Your task to perform on an android device: open a bookmark in the chrome app Image 0: 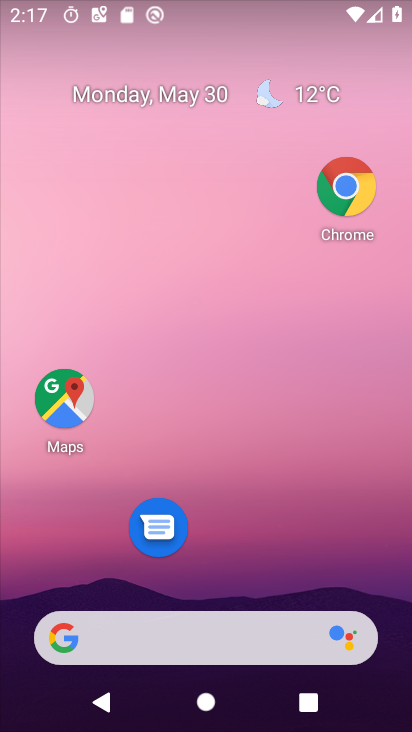
Step 0: drag from (184, 577) to (211, 103)
Your task to perform on an android device: open a bookmark in the chrome app Image 1: 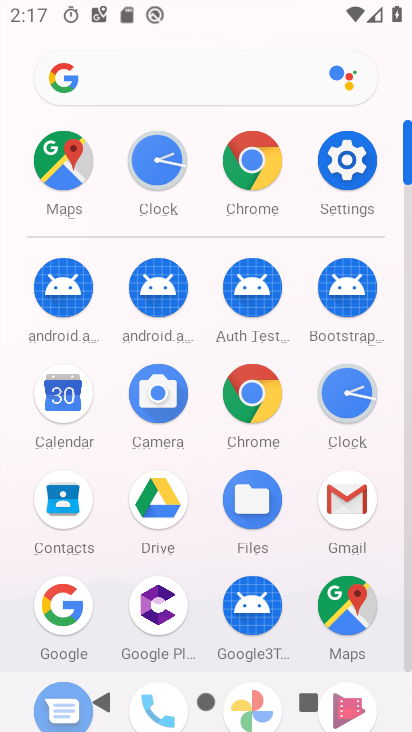
Step 1: click (248, 390)
Your task to perform on an android device: open a bookmark in the chrome app Image 2: 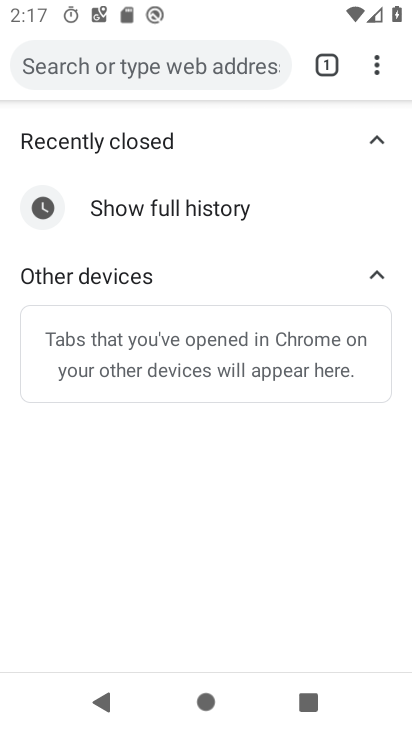
Step 2: task complete